Your task to perform on an android device: Open notification settings Image 0: 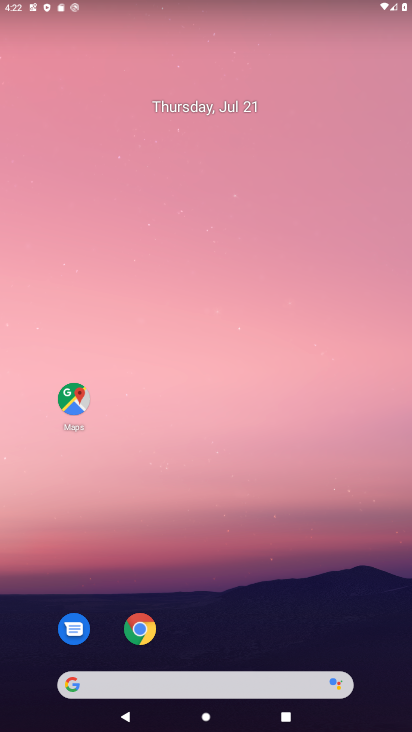
Step 0: drag from (340, 417) to (261, 0)
Your task to perform on an android device: Open notification settings Image 1: 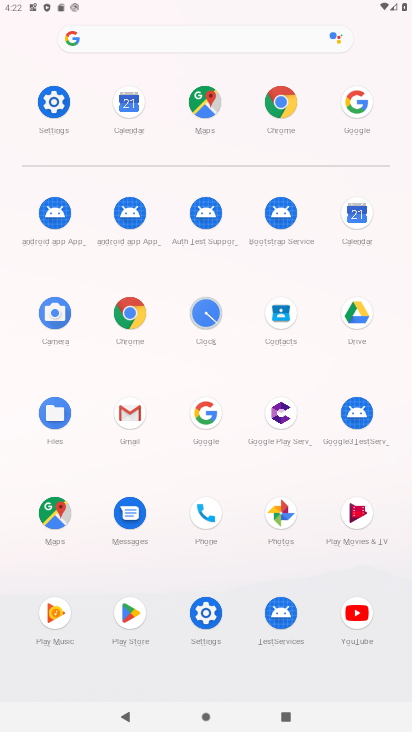
Step 1: click (50, 108)
Your task to perform on an android device: Open notification settings Image 2: 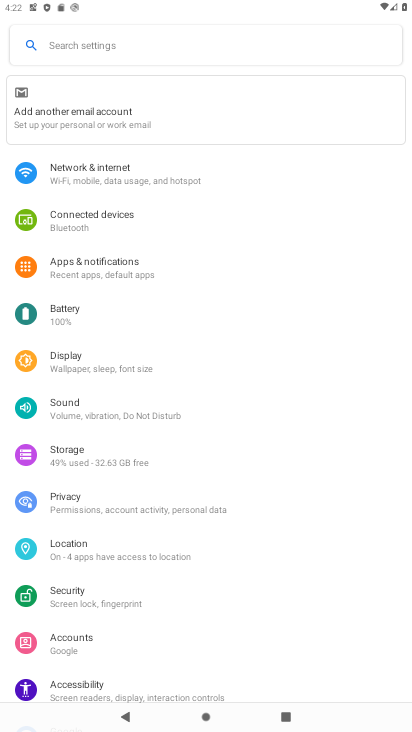
Step 2: click (99, 259)
Your task to perform on an android device: Open notification settings Image 3: 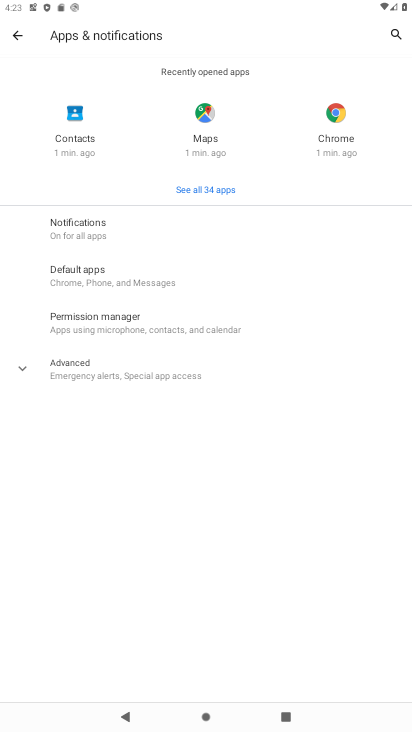
Step 3: click (79, 234)
Your task to perform on an android device: Open notification settings Image 4: 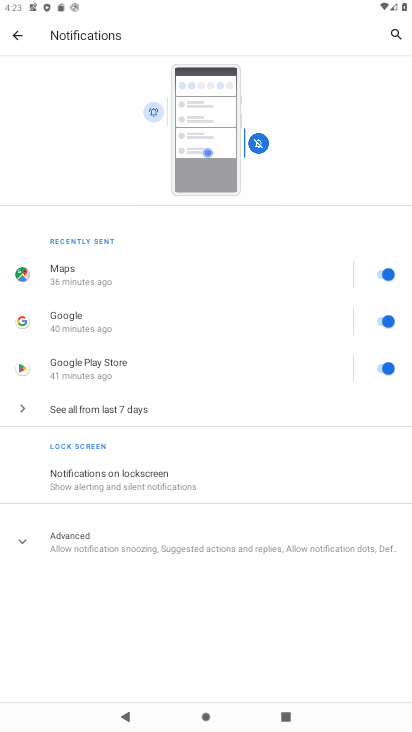
Step 4: task complete